Your task to perform on an android device: see creations saved in the google photos Image 0: 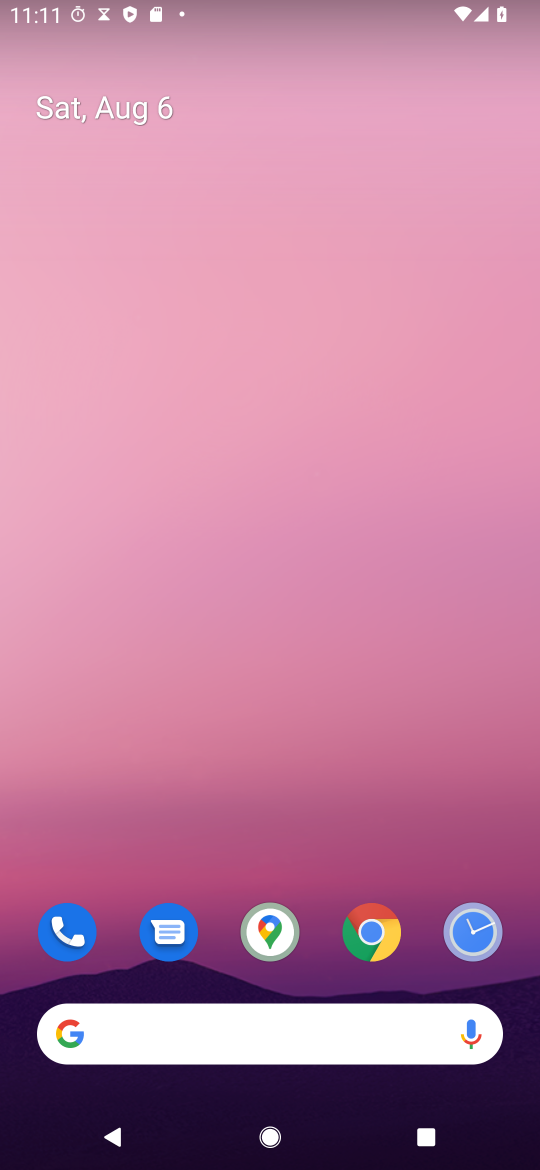
Step 0: drag from (215, 1043) to (178, 461)
Your task to perform on an android device: see creations saved in the google photos Image 1: 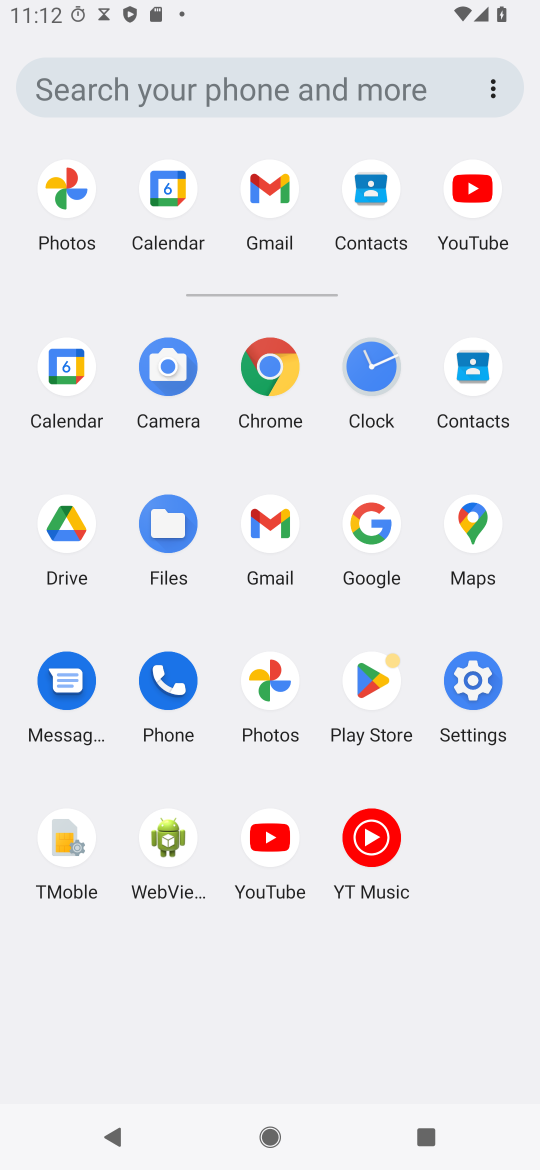
Step 1: click (271, 683)
Your task to perform on an android device: see creations saved in the google photos Image 2: 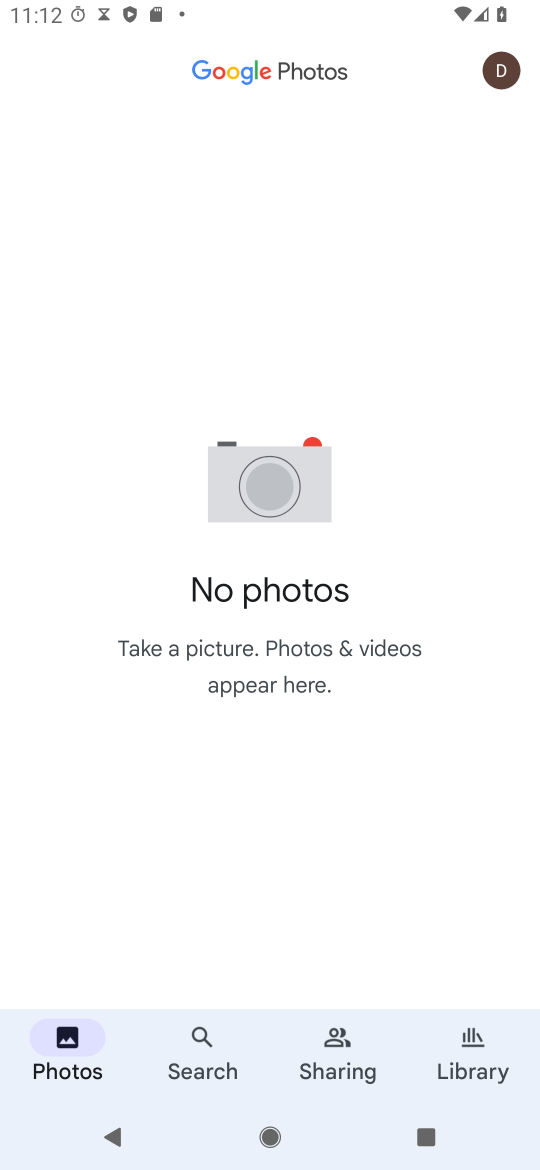
Step 2: click (196, 1049)
Your task to perform on an android device: see creations saved in the google photos Image 3: 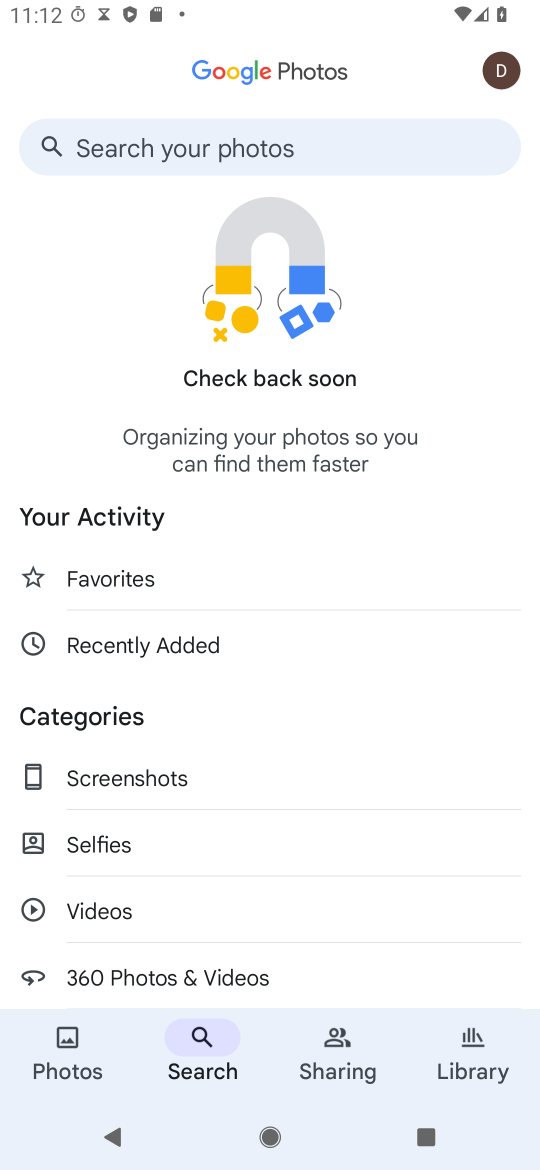
Step 3: drag from (182, 916) to (253, 719)
Your task to perform on an android device: see creations saved in the google photos Image 4: 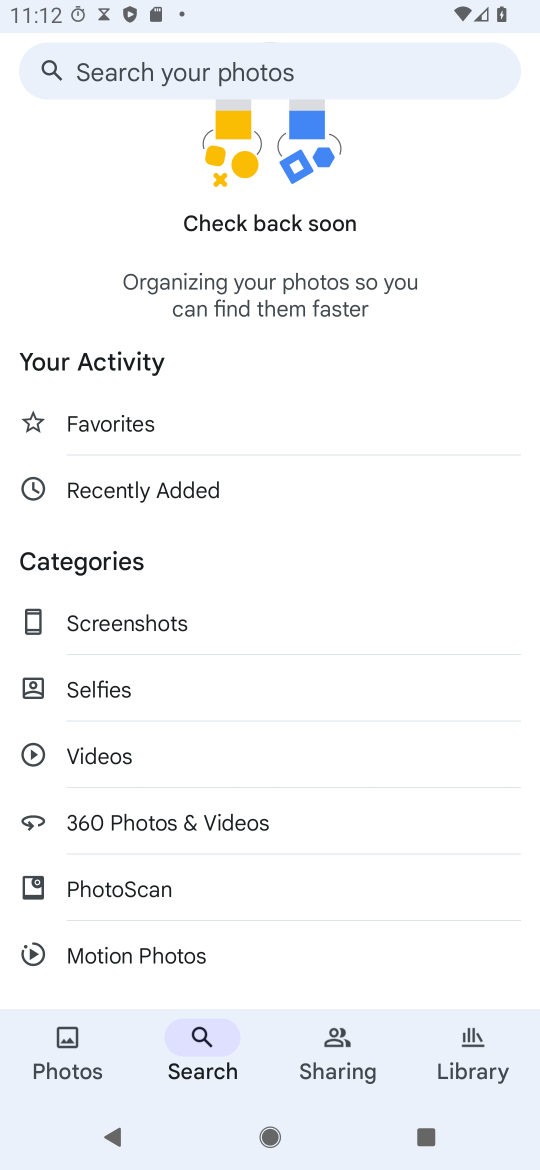
Step 4: drag from (261, 945) to (350, 689)
Your task to perform on an android device: see creations saved in the google photos Image 5: 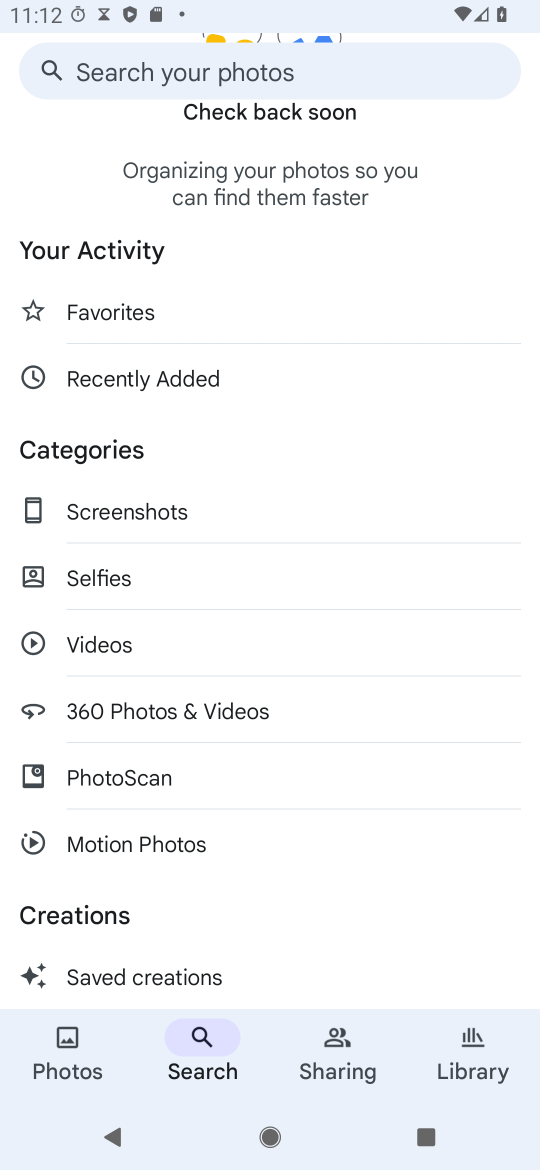
Step 5: drag from (163, 954) to (266, 767)
Your task to perform on an android device: see creations saved in the google photos Image 6: 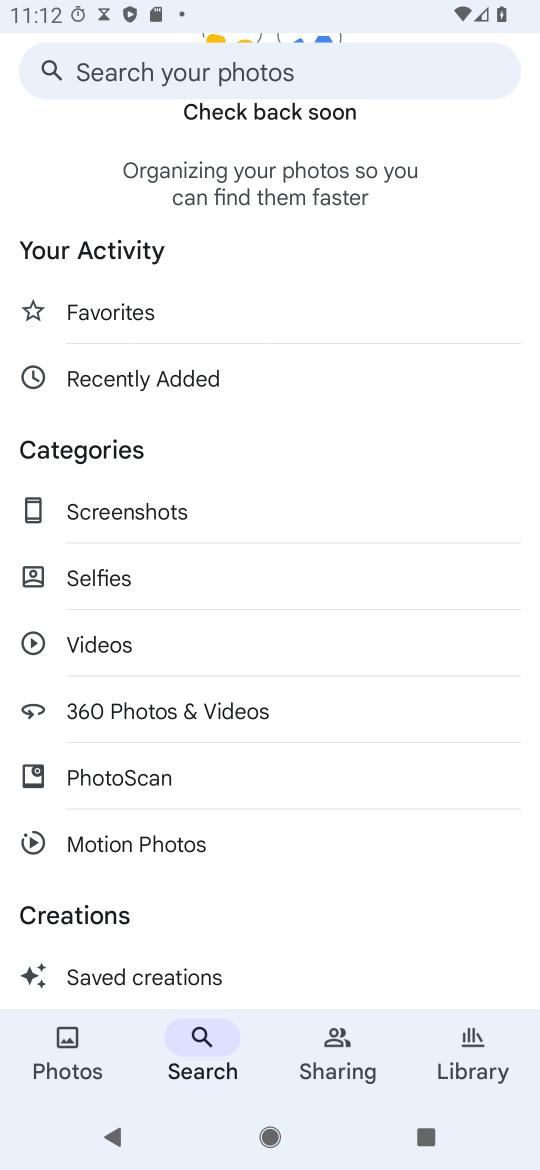
Step 6: click (146, 969)
Your task to perform on an android device: see creations saved in the google photos Image 7: 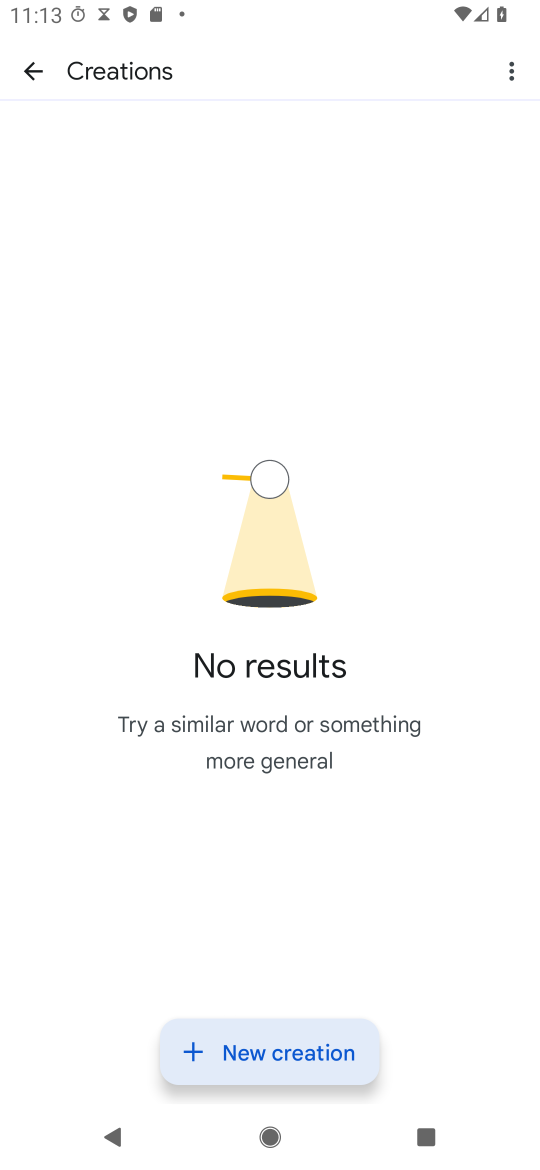
Step 7: task complete